Your task to perform on an android device: Show me the alarms in the clock app Image 0: 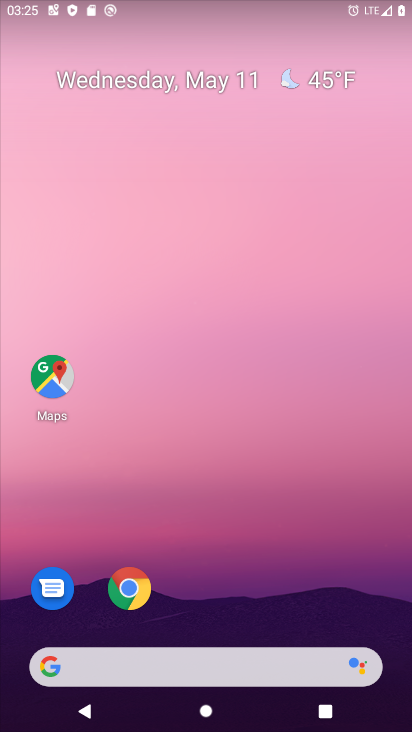
Step 0: drag from (213, 599) to (213, 196)
Your task to perform on an android device: Show me the alarms in the clock app Image 1: 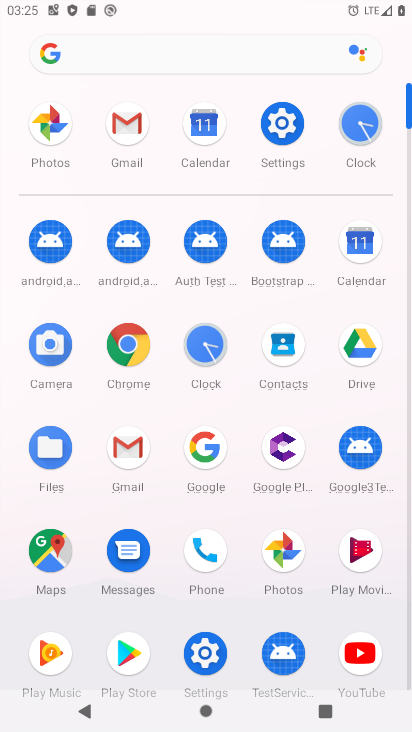
Step 1: click (358, 130)
Your task to perform on an android device: Show me the alarms in the clock app Image 2: 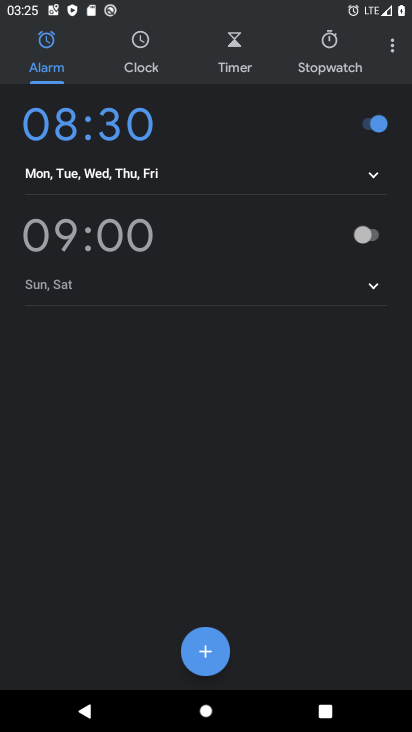
Step 2: click (388, 52)
Your task to perform on an android device: Show me the alarms in the clock app Image 3: 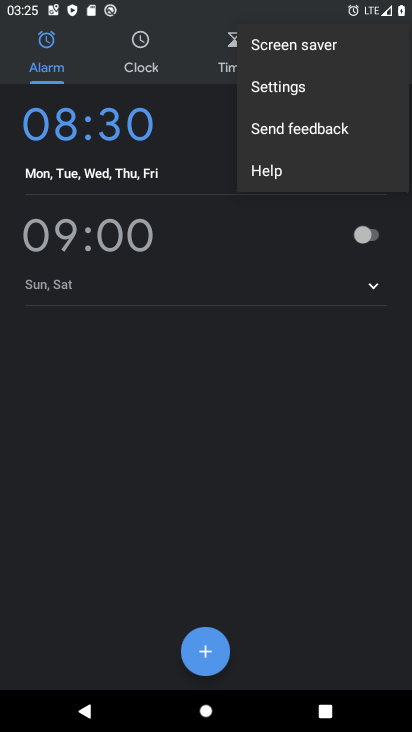
Step 3: click (52, 59)
Your task to perform on an android device: Show me the alarms in the clock app Image 4: 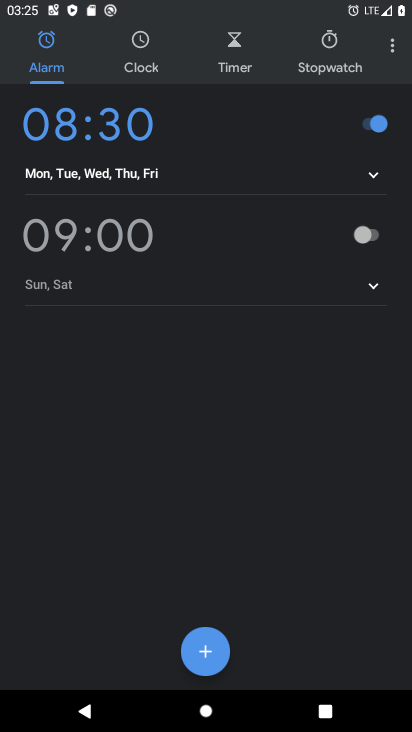
Step 4: click (184, 410)
Your task to perform on an android device: Show me the alarms in the clock app Image 5: 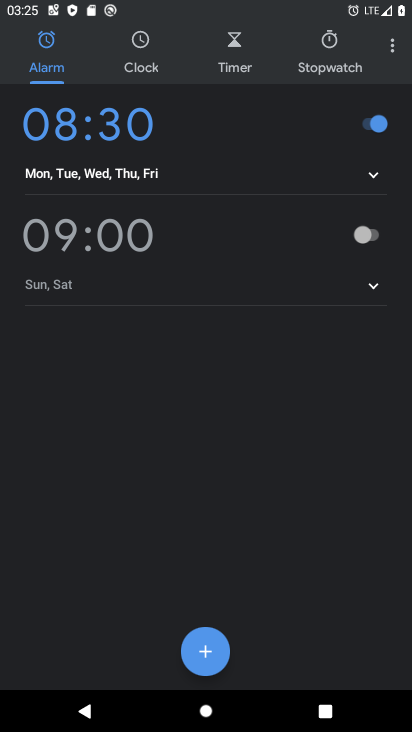
Step 5: task complete